Your task to perform on an android device: Go to Android settings Image 0: 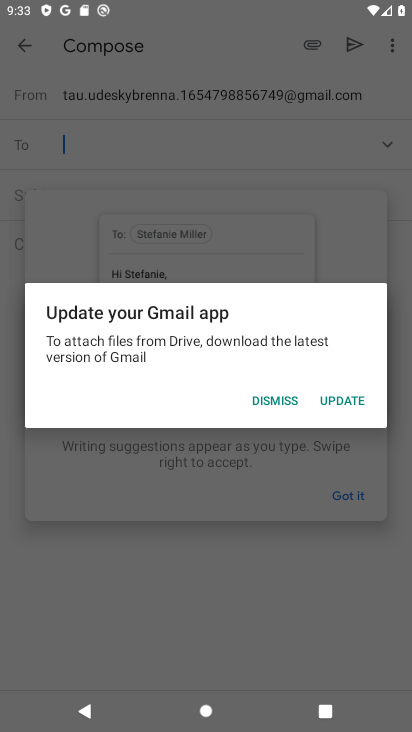
Step 0: press home button
Your task to perform on an android device: Go to Android settings Image 1: 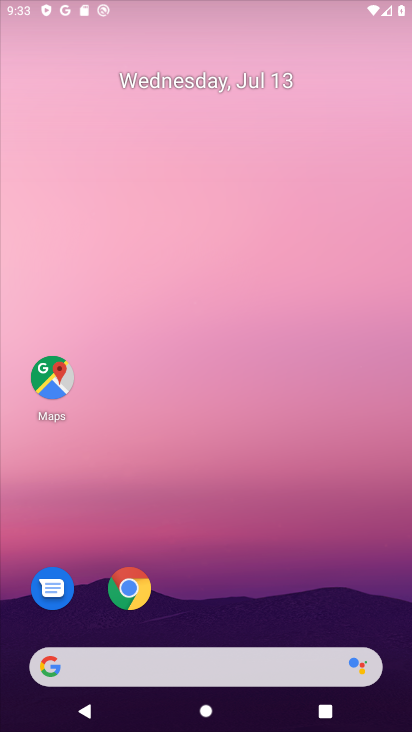
Step 1: drag from (242, 601) to (184, 71)
Your task to perform on an android device: Go to Android settings Image 2: 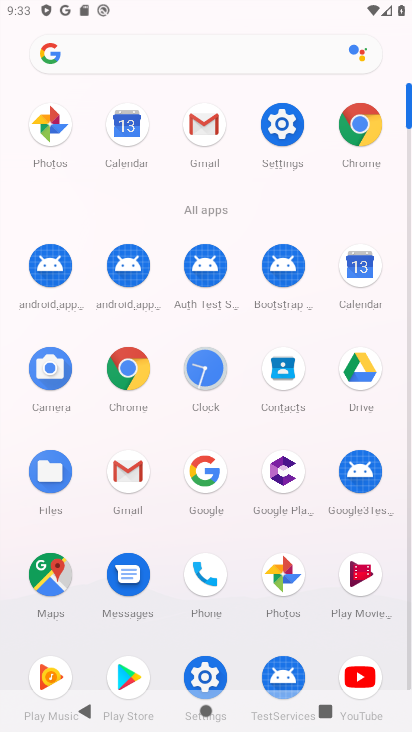
Step 2: click (283, 125)
Your task to perform on an android device: Go to Android settings Image 3: 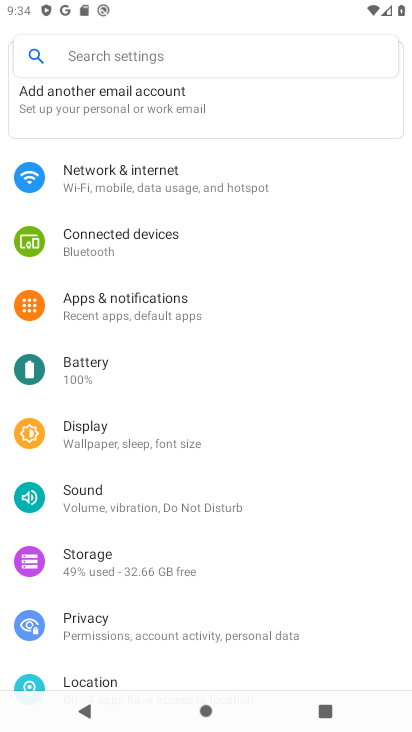
Step 3: task complete